Your task to perform on an android device: Is it going to rain today? Image 0: 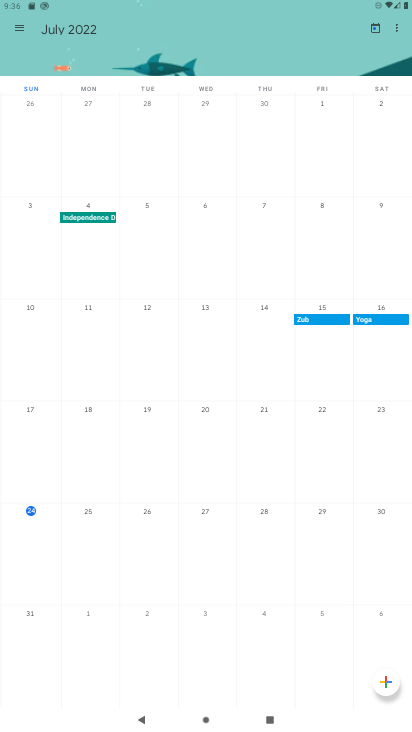
Step 0: press home button
Your task to perform on an android device: Is it going to rain today? Image 1: 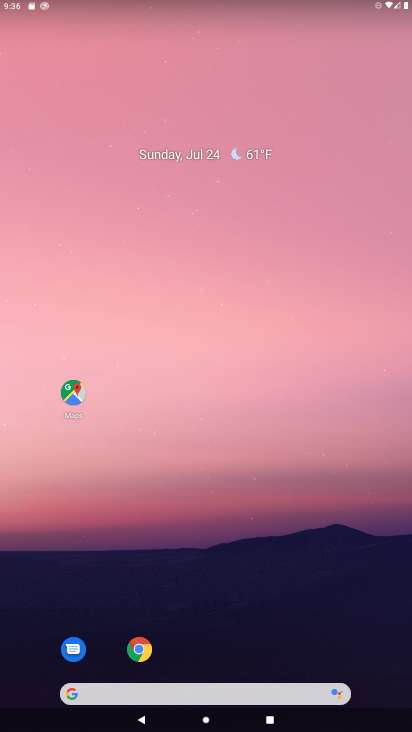
Step 1: drag from (347, 640) to (323, 144)
Your task to perform on an android device: Is it going to rain today? Image 2: 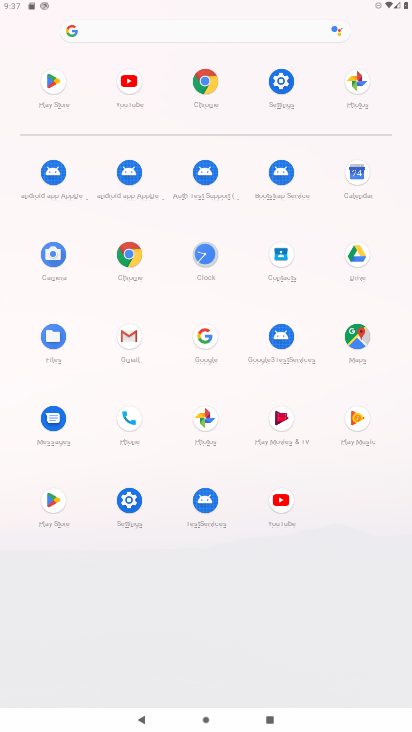
Step 2: click (203, 79)
Your task to perform on an android device: Is it going to rain today? Image 3: 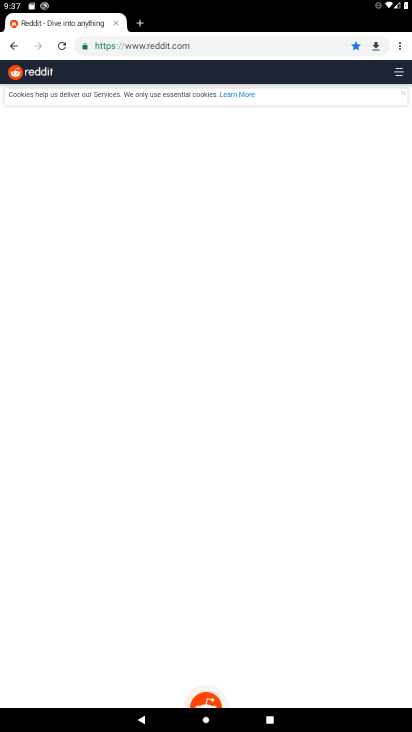
Step 3: click (225, 49)
Your task to perform on an android device: Is it going to rain today? Image 4: 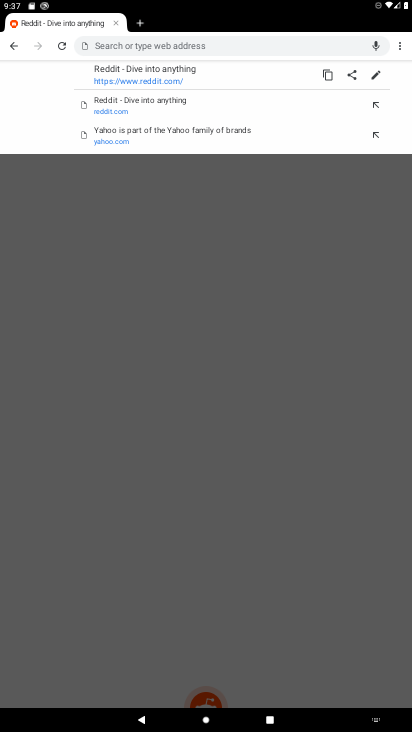
Step 4: type ""
Your task to perform on an android device: Is it going to rain today? Image 5: 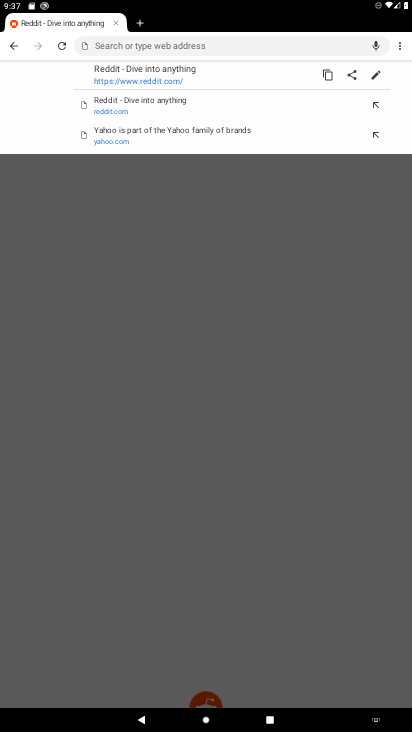
Step 5: type "weather"
Your task to perform on an android device: Is it going to rain today? Image 6: 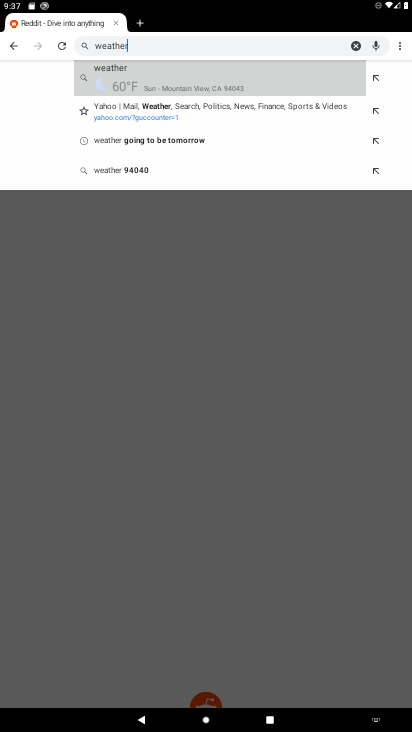
Step 6: click (222, 86)
Your task to perform on an android device: Is it going to rain today? Image 7: 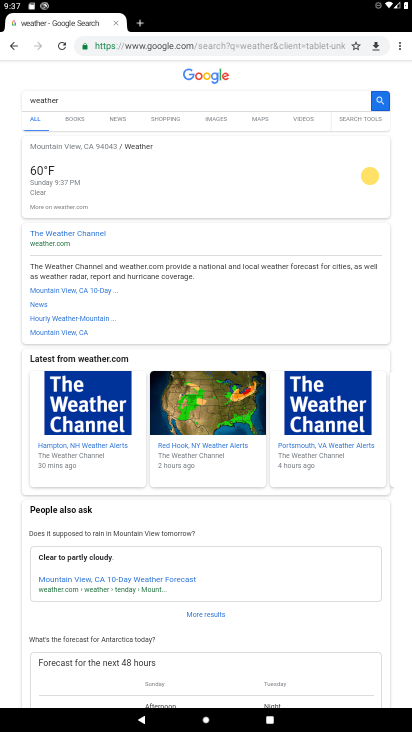
Step 7: task complete